Your task to perform on an android device: Open calendar and show me the second week of next month Image 0: 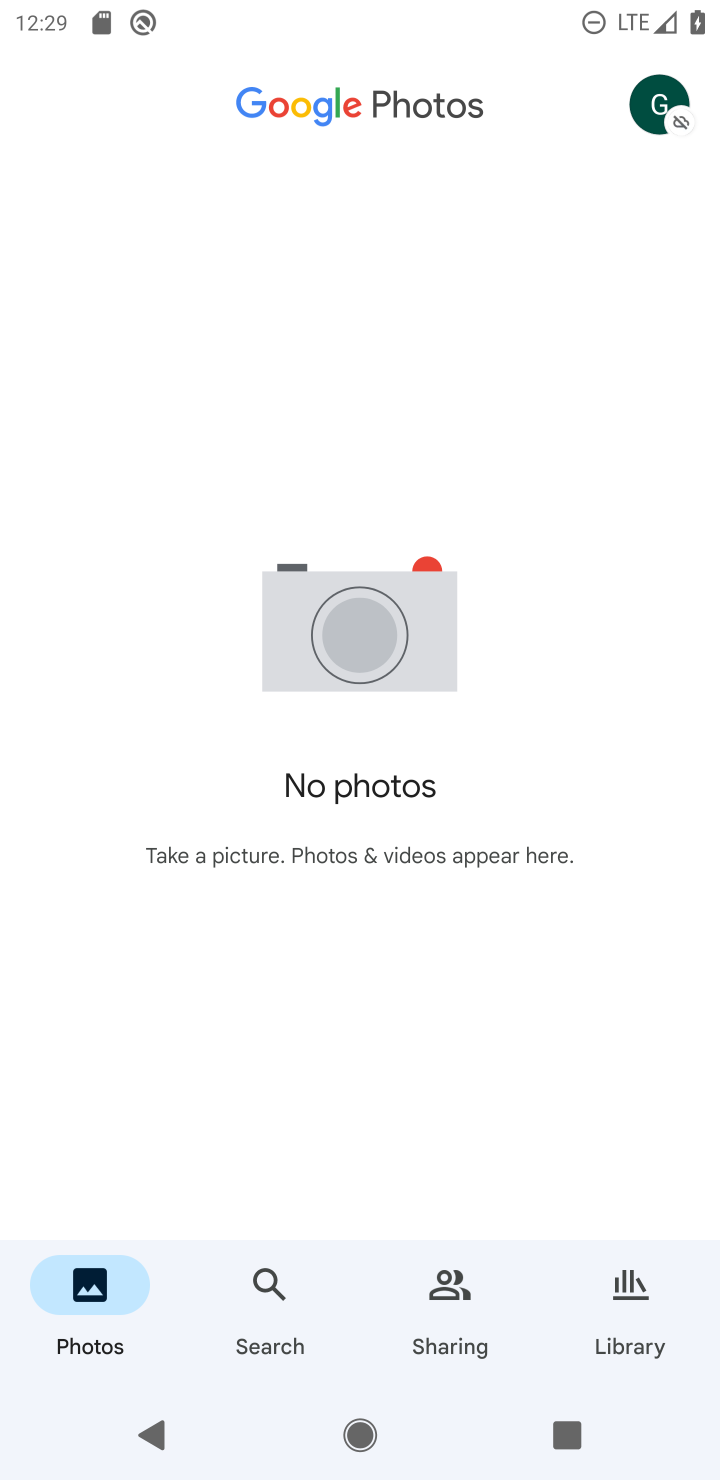
Step 0: press home button
Your task to perform on an android device: Open calendar and show me the second week of next month Image 1: 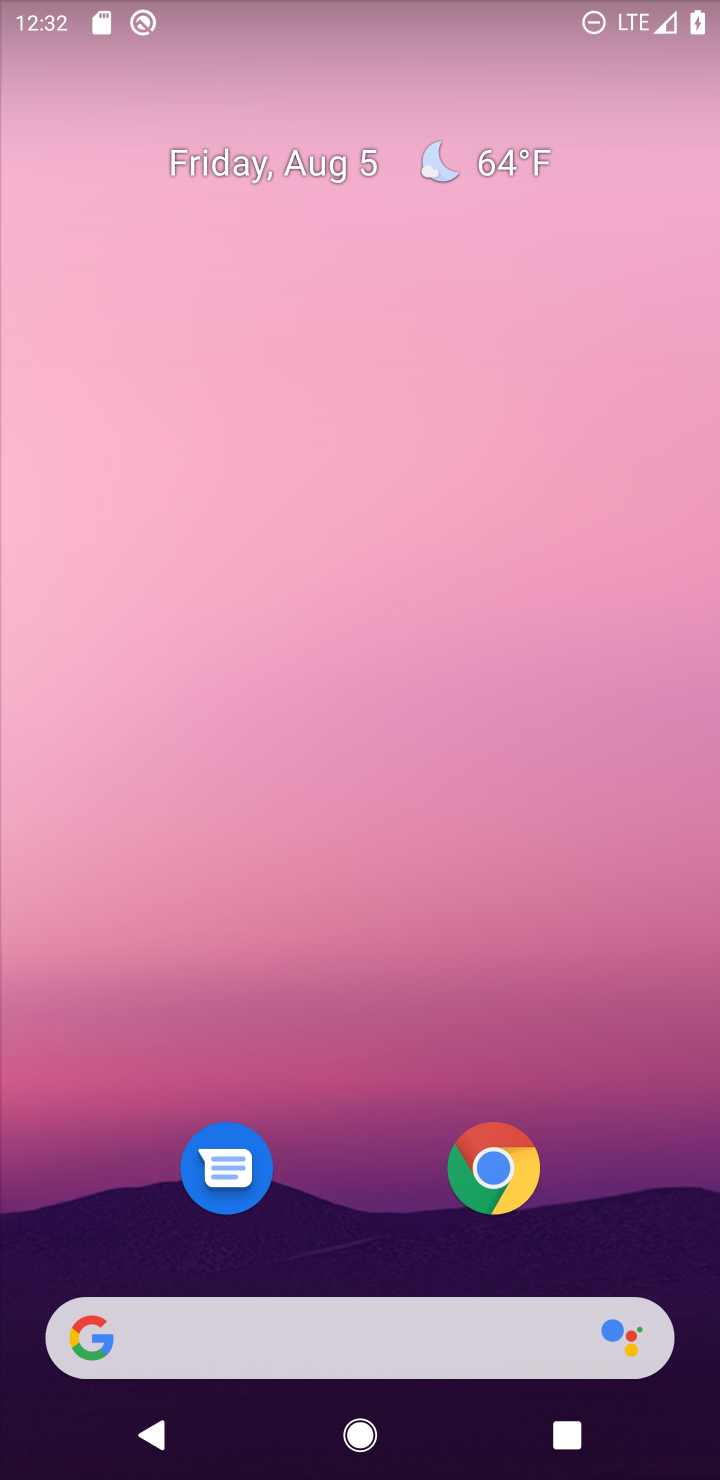
Step 1: drag from (593, 910) to (433, 0)
Your task to perform on an android device: Open calendar and show me the second week of next month Image 2: 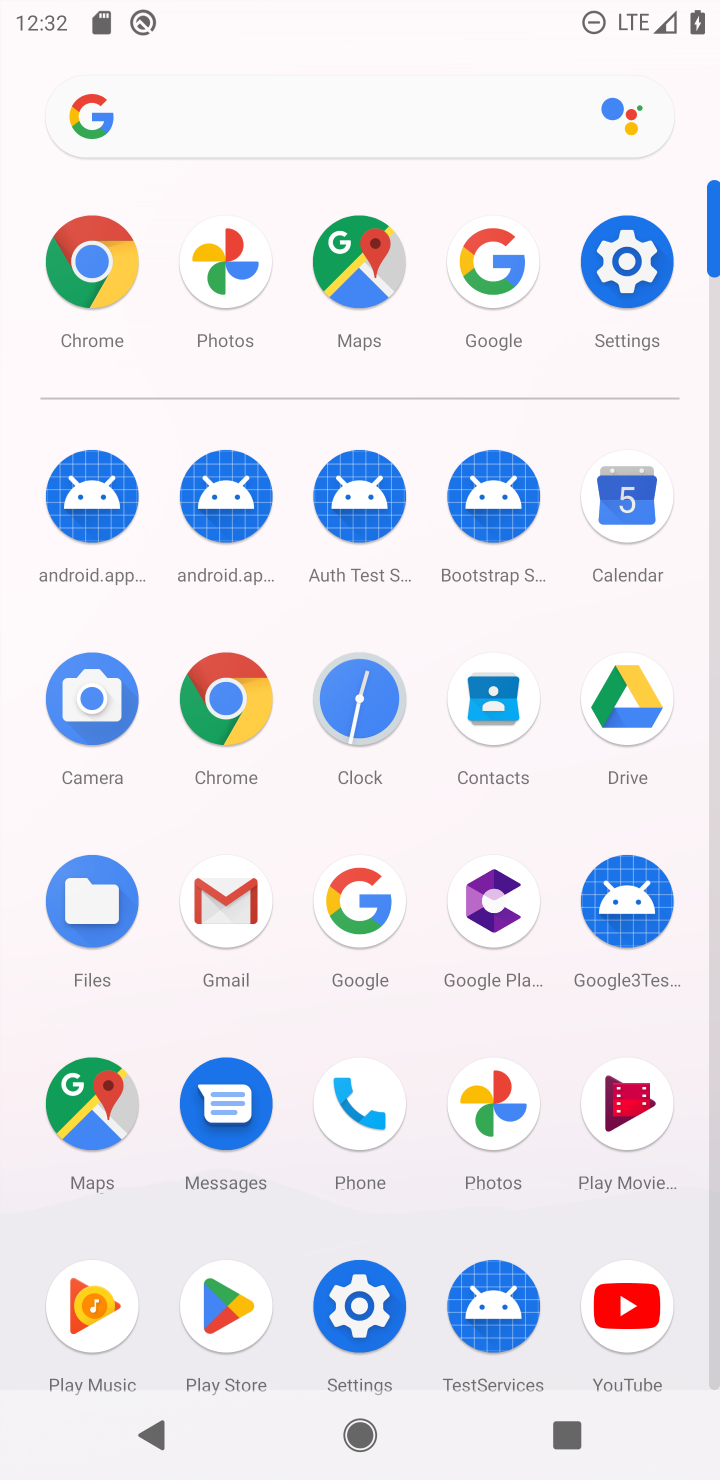
Step 2: click (631, 504)
Your task to perform on an android device: Open calendar and show me the second week of next month Image 3: 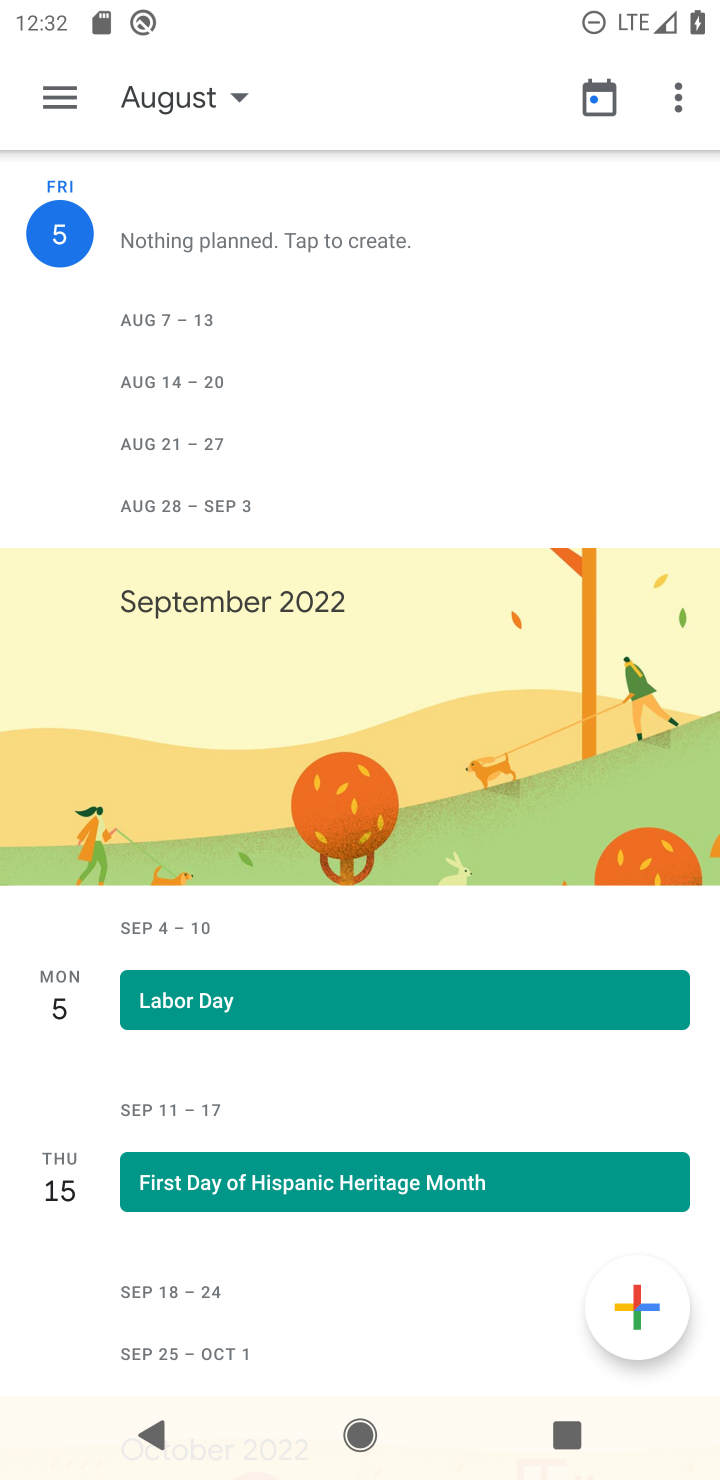
Step 3: click (164, 99)
Your task to perform on an android device: Open calendar and show me the second week of next month Image 4: 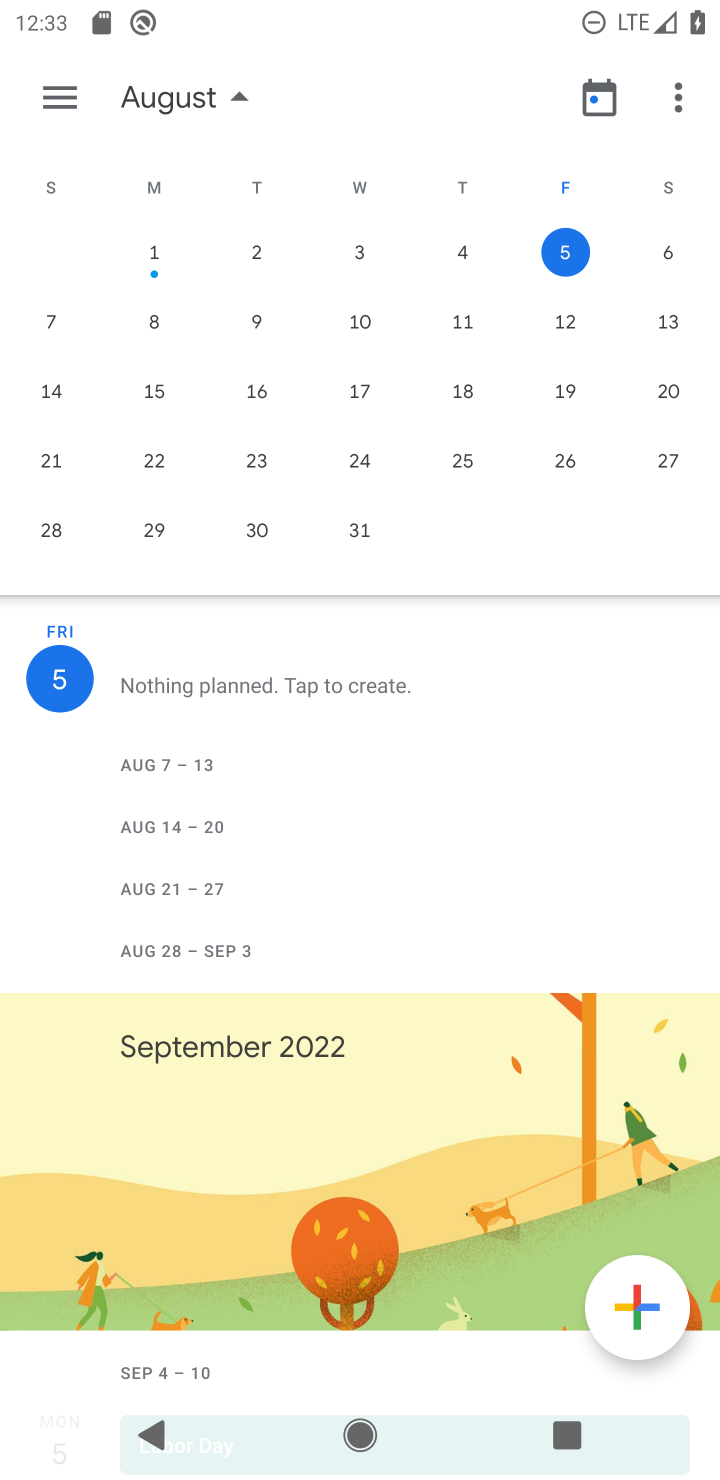
Step 4: drag from (630, 334) to (21, 431)
Your task to perform on an android device: Open calendar and show me the second week of next month Image 5: 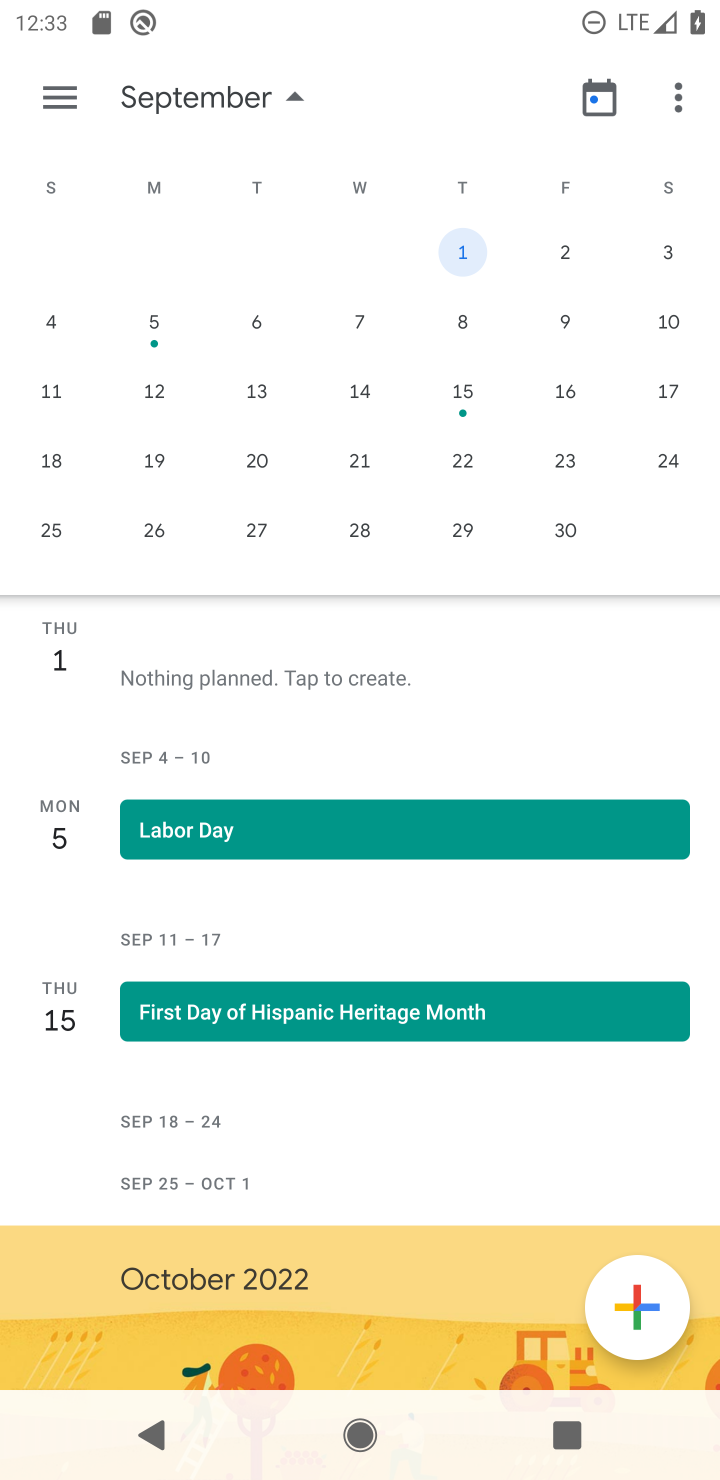
Step 5: click (53, 390)
Your task to perform on an android device: Open calendar and show me the second week of next month Image 6: 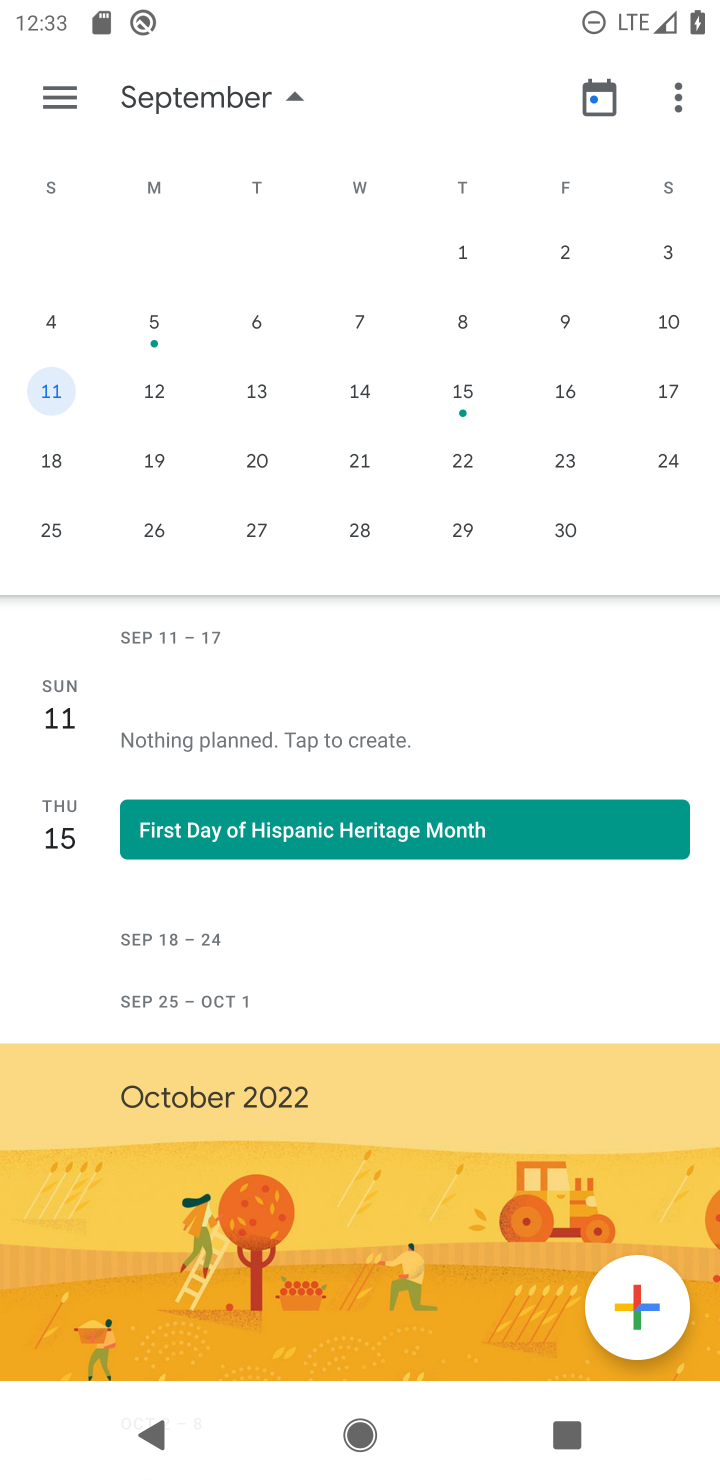
Step 6: task complete